Your task to perform on an android device: View the shopping cart on newegg. Add "duracell triple a" to the cart on newegg Image 0: 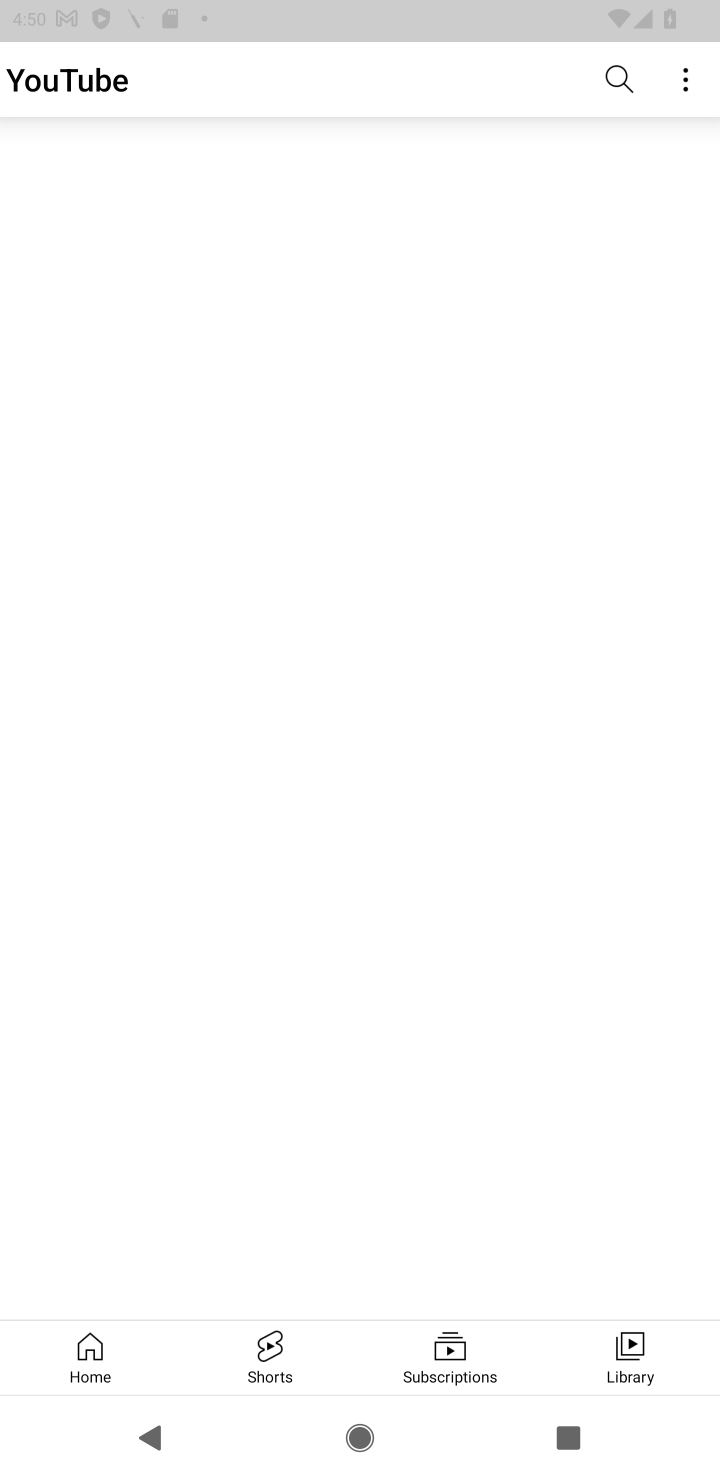
Step 0: press home button
Your task to perform on an android device: View the shopping cart on newegg. Add "duracell triple a" to the cart on newegg Image 1: 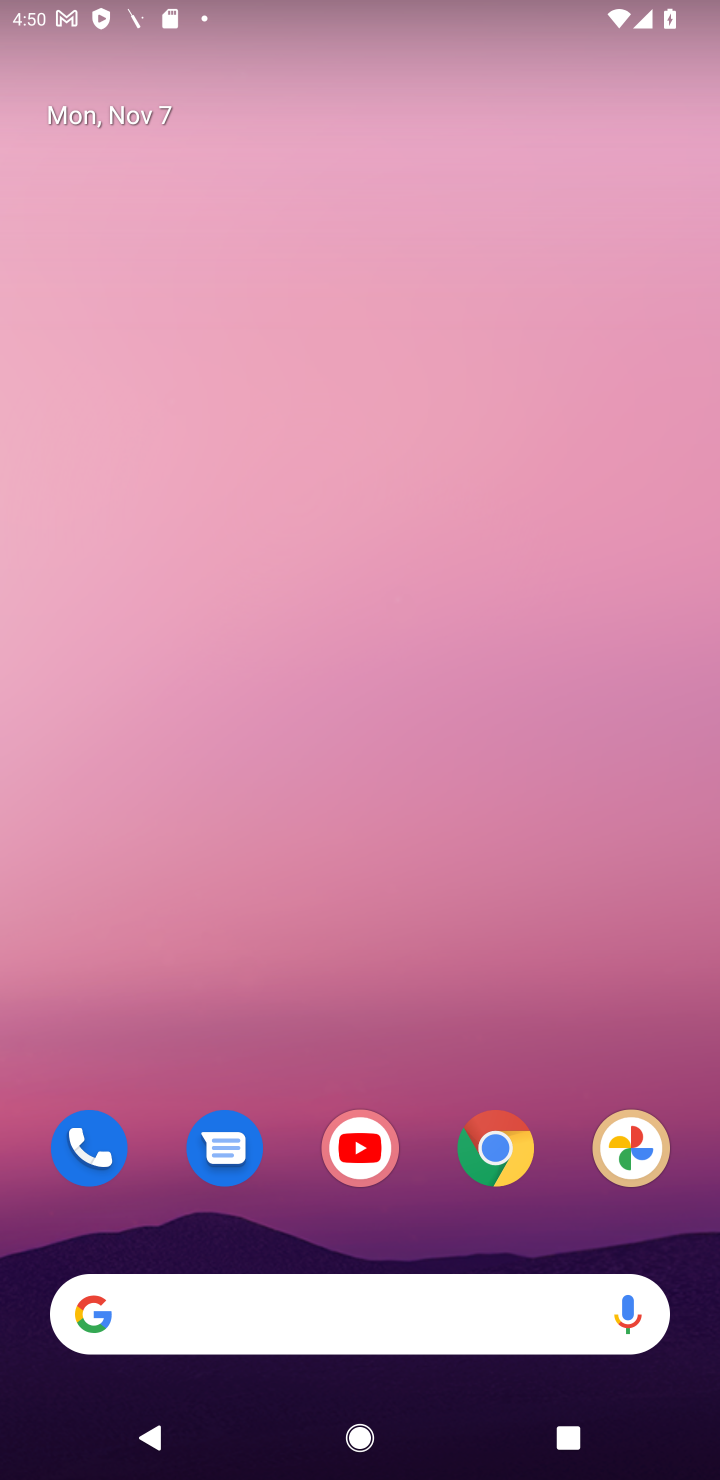
Step 1: click (493, 1155)
Your task to perform on an android device: View the shopping cart on newegg. Add "duracell triple a" to the cart on newegg Image 2: 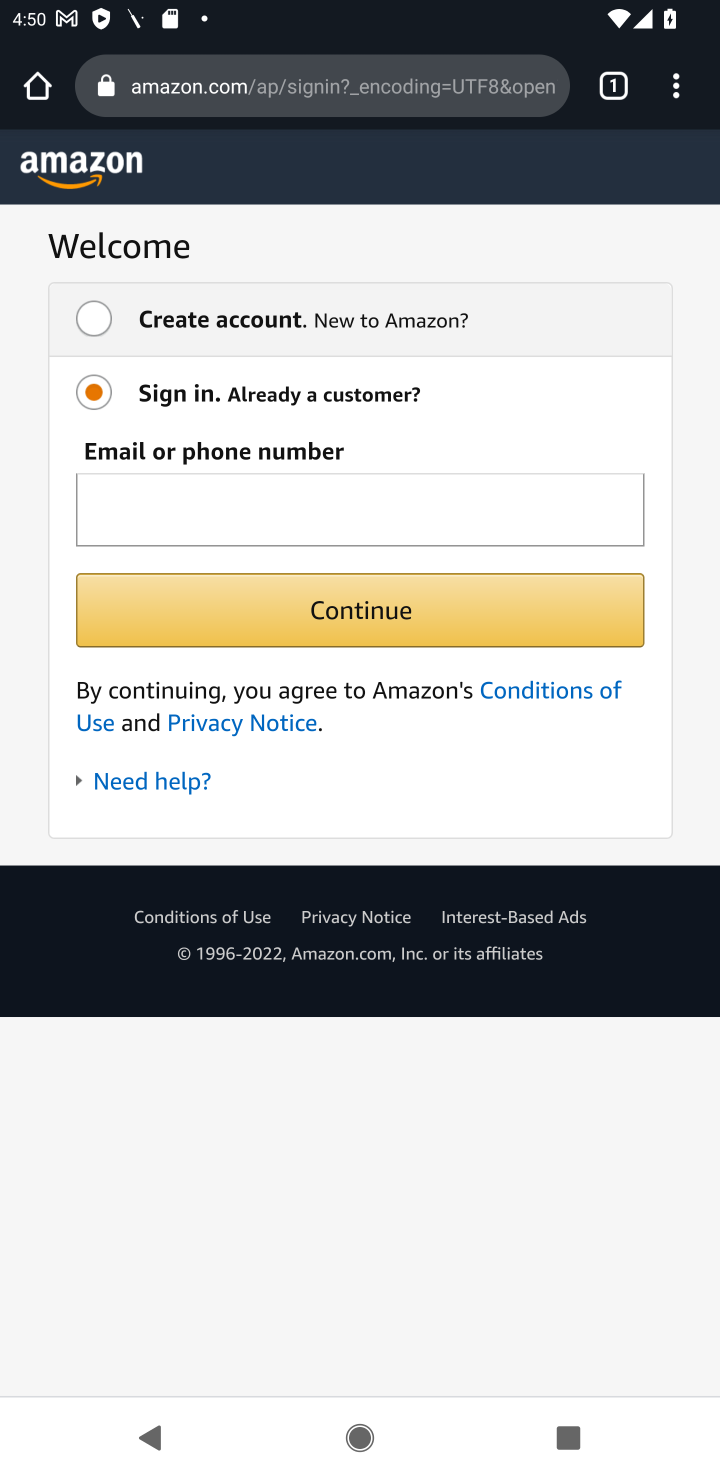
Step 2: click (401, 67)
Your task to perform on an android device: View the shopping cart on newegg. Add "duracell triple a" to the cart on newegg Image 3: 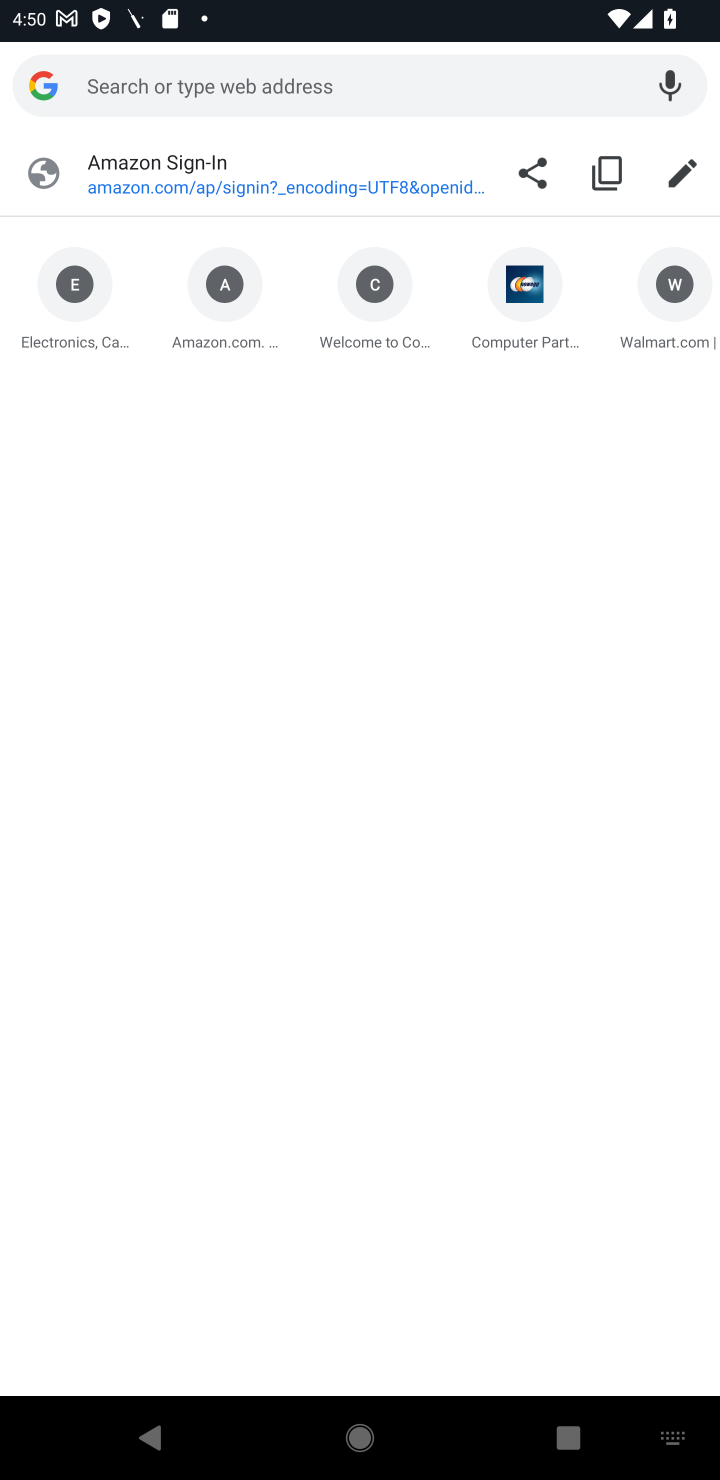
Step 3: type "newegg"
Your task to perform on an android device: View the shopping cart on newegg. Add "duracell triple a" to the cart on newegg Image 4: 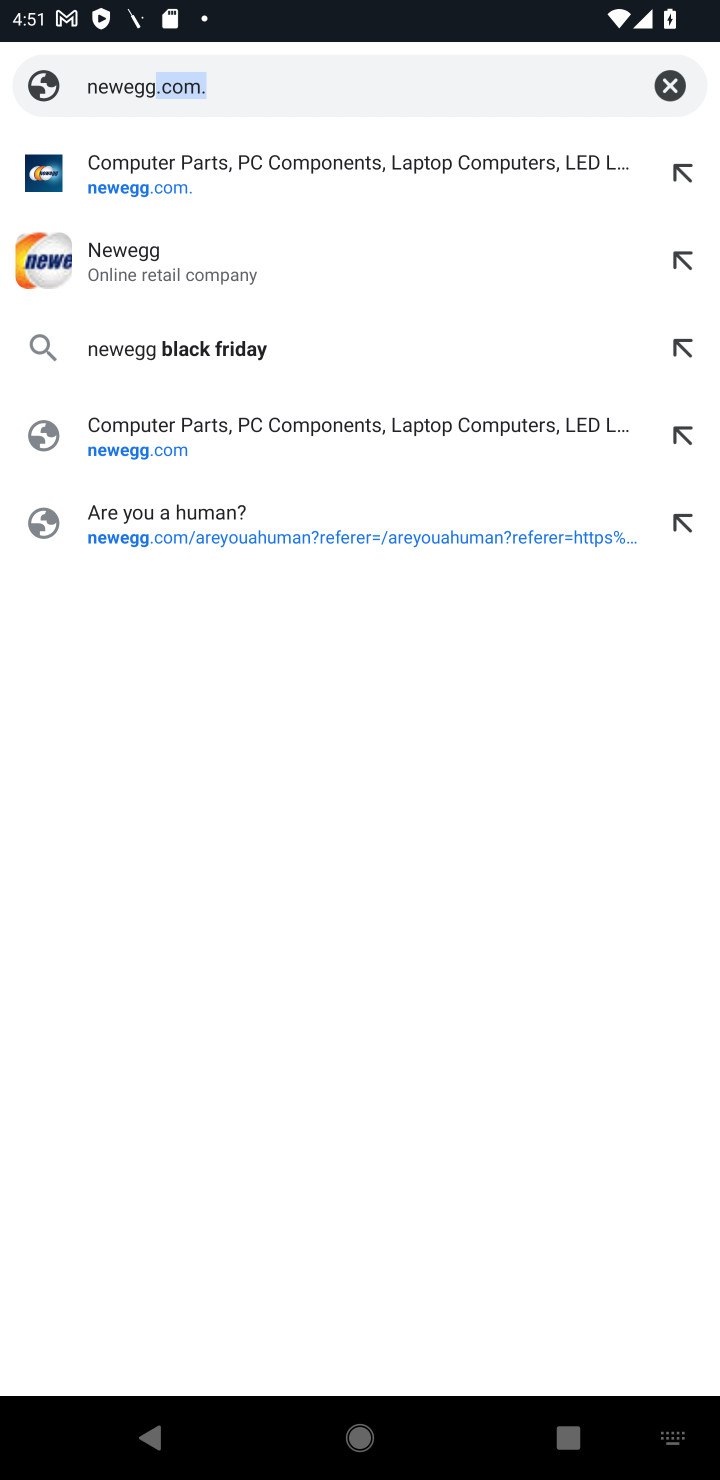
Step 4: click (145, 181)
Your task to perform on an android device: View the shopping cart on newegg. Add "duracell triple a" to the cart on newegg Image 5: 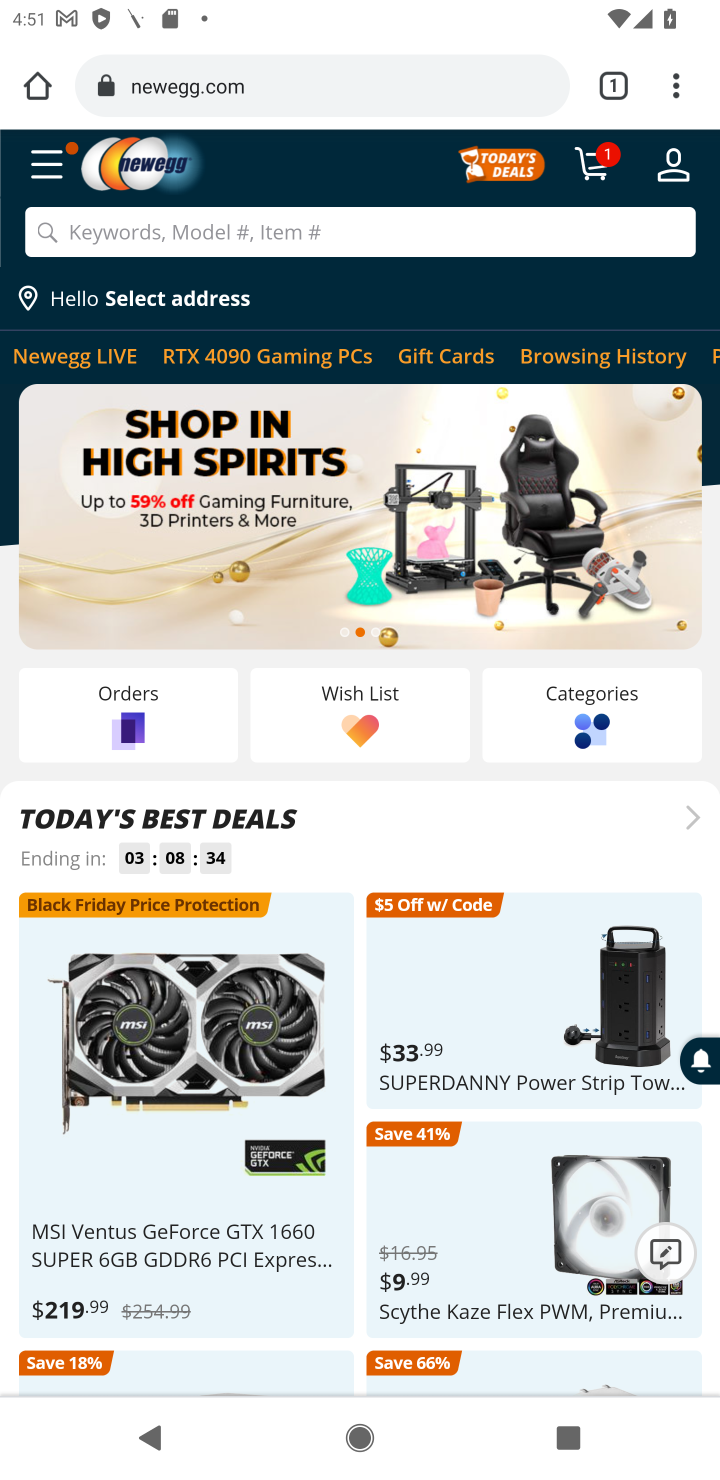
Step 5: click (247, 218)
Your task to perform on an android device: View the shopping cart on newegg. Add "duracell triple a" to the cart on newegg Image 6: 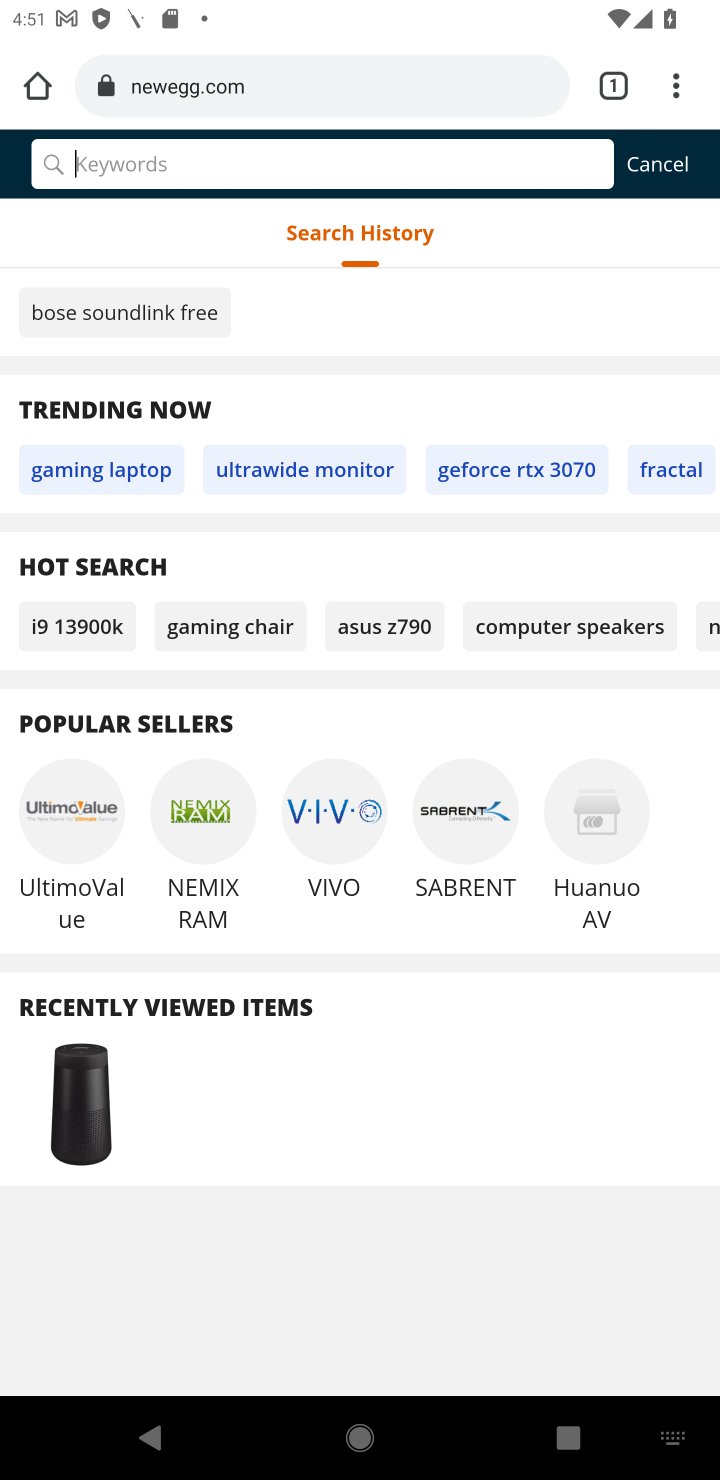
Step 6: type "duracell triple a"
Your task to perform on an android device: View the shopping cart on newegg. Add "duracell triple a" to the cart on newegg Image 7: 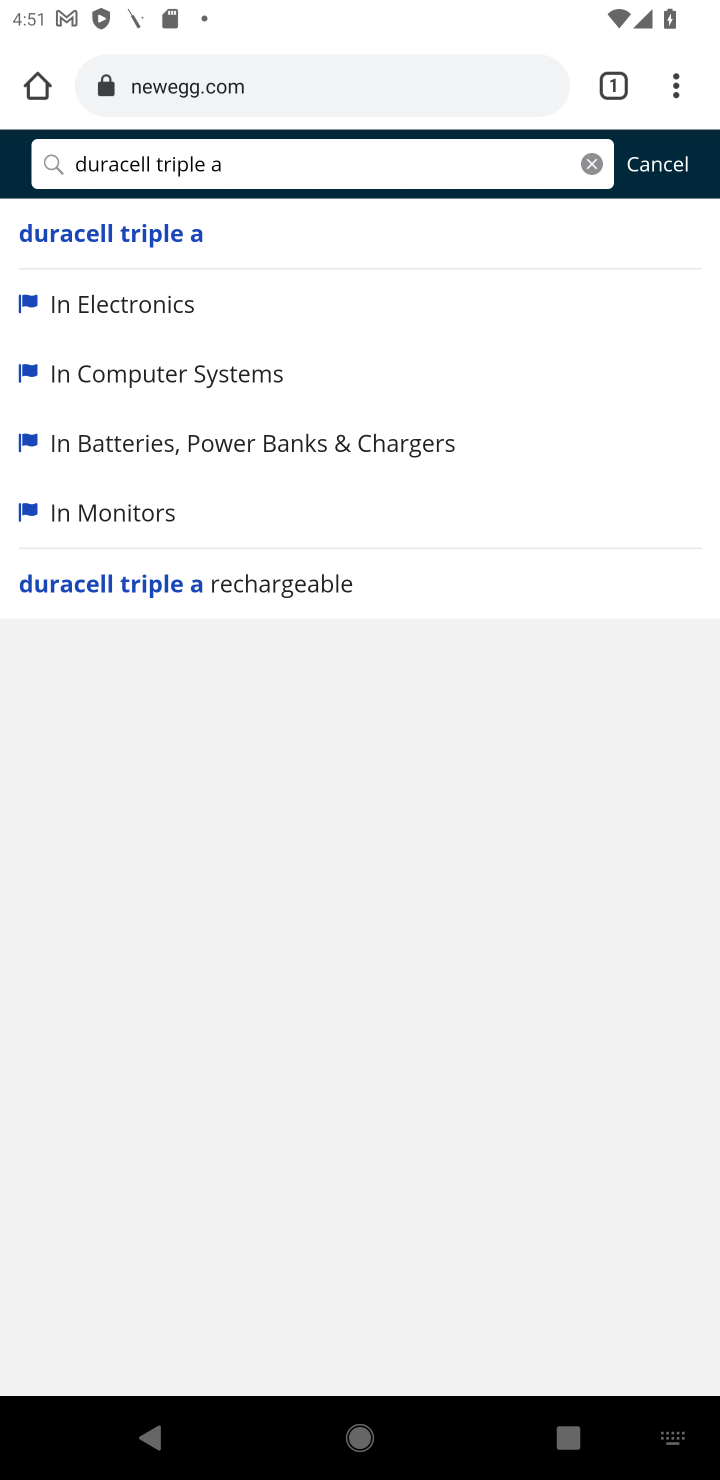
Step 7: click (75, 230)
Your task to perform on an android device: View the shopping cart on newegg. Add "duracell triple a" to the cart on newegg Image 8: 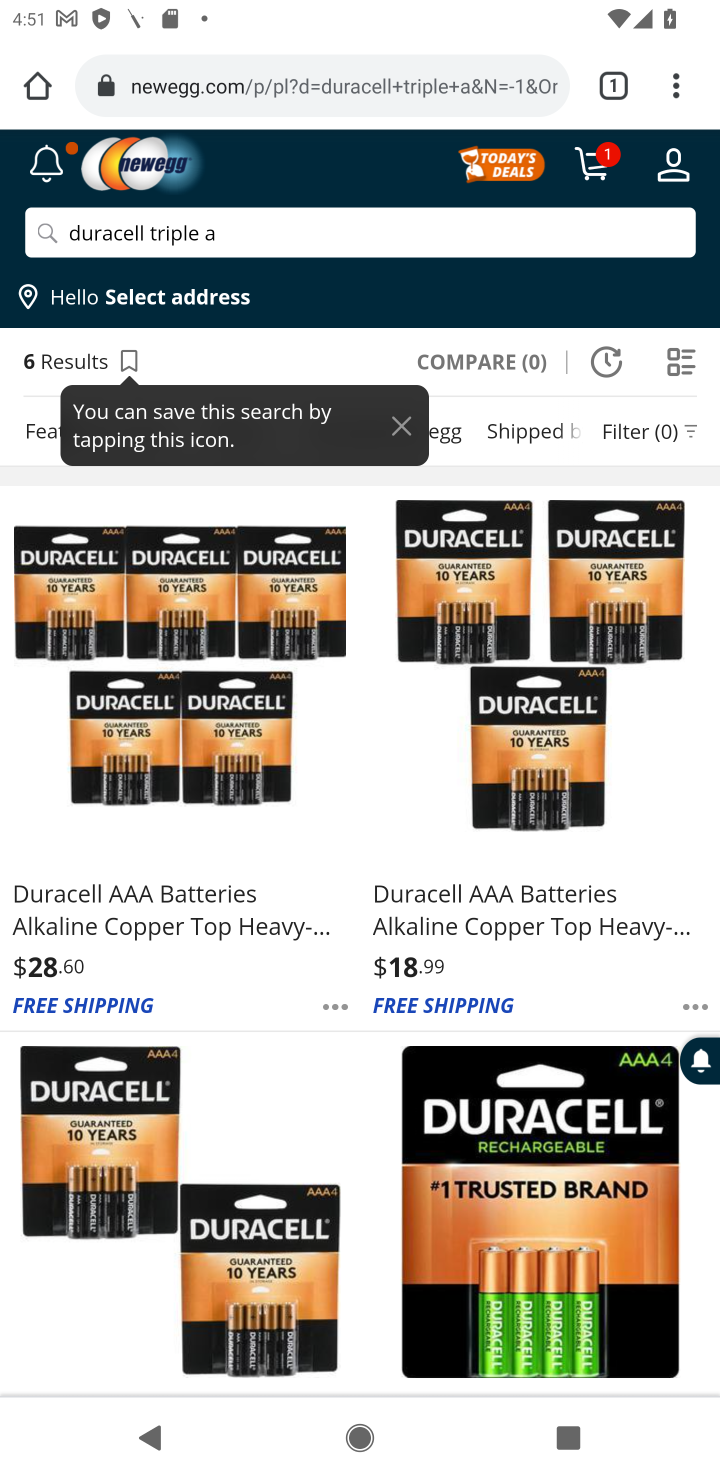
Step 8: click (135, 922)
Your task to perform on an android device: View the shopping cart on newegg. Add "duracell triple a" to the cart on newegg Image 9: 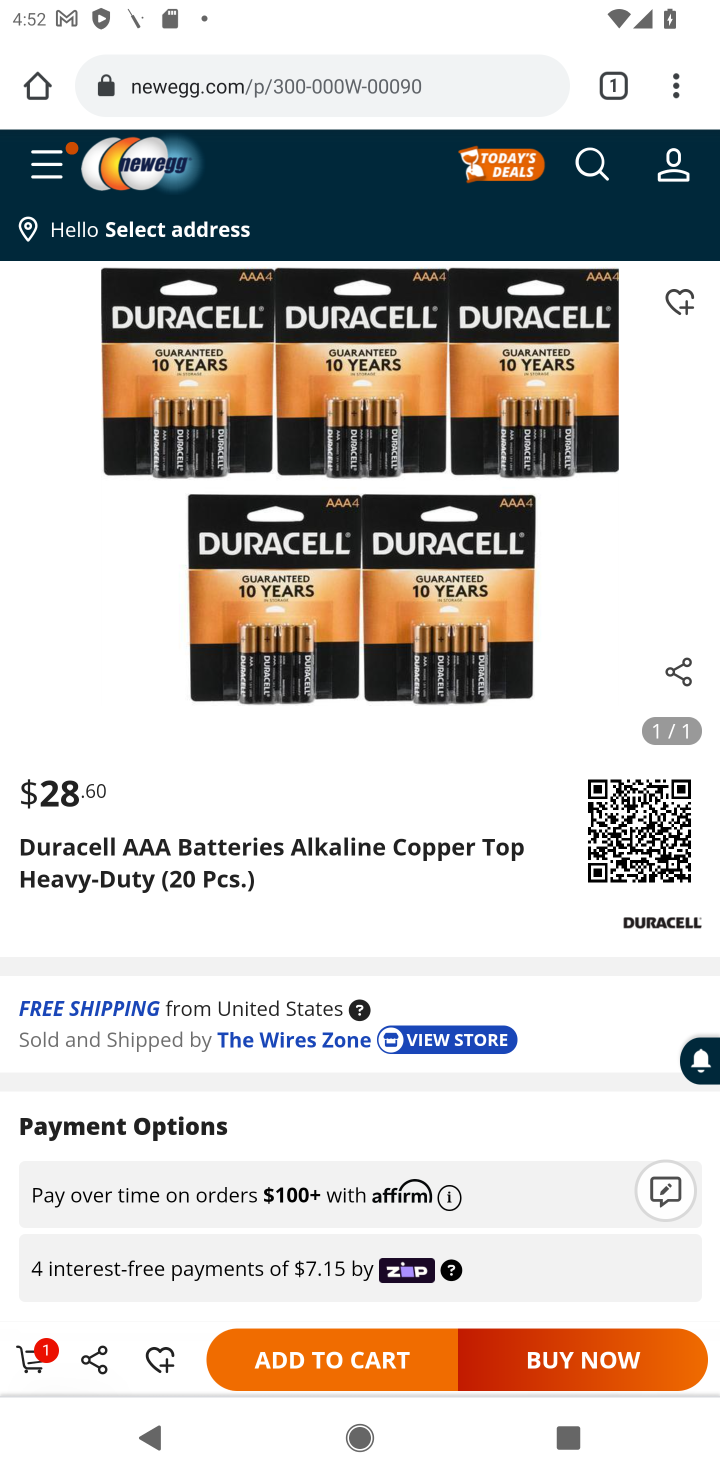
Step 9: click (350, 1377)
Your task to perform on an android device: View the shopping cart on newegg. Add "duracell triple a" to the cart on newegg Image 10: 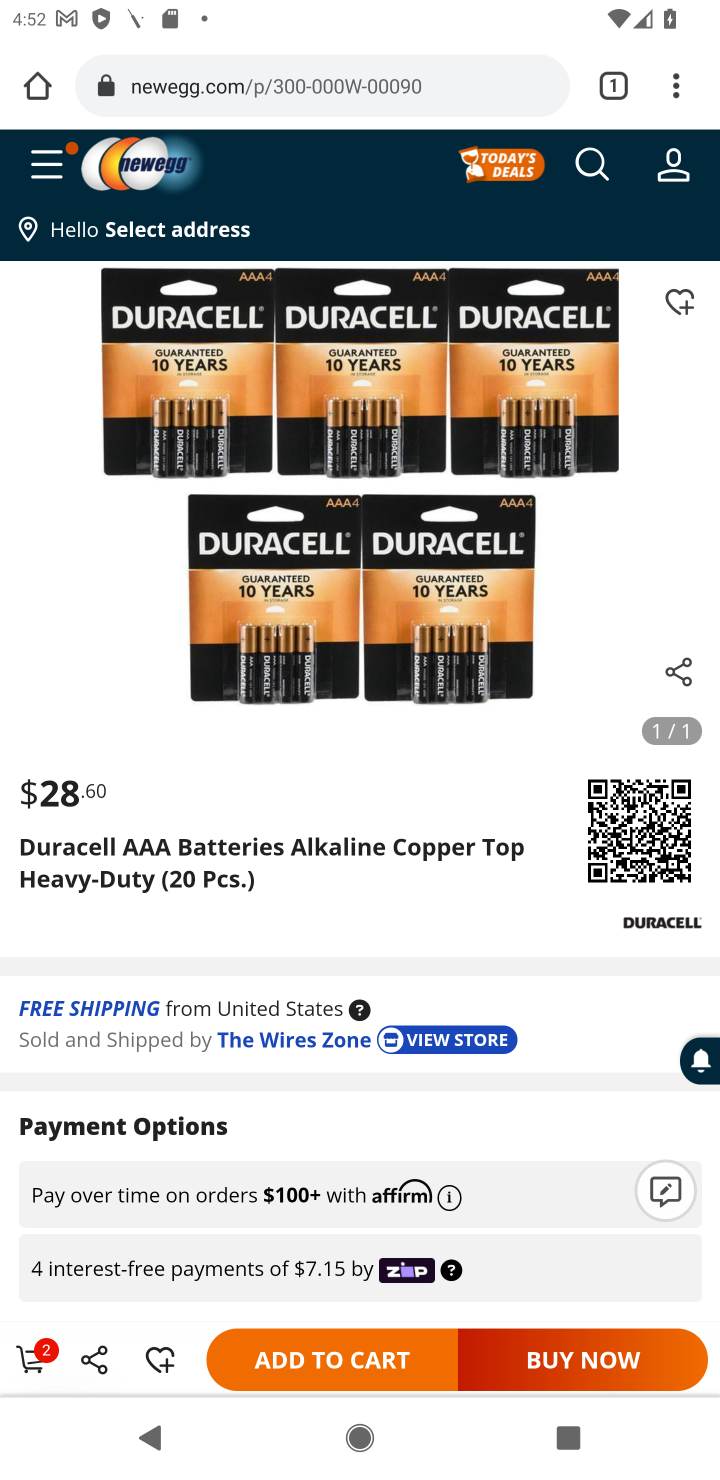
Step 10: click (36, 1356)
Your task to perform on an android device: View the shopping cart on newegg. Add "duracell triple a" to the cart on newegg Image 11: 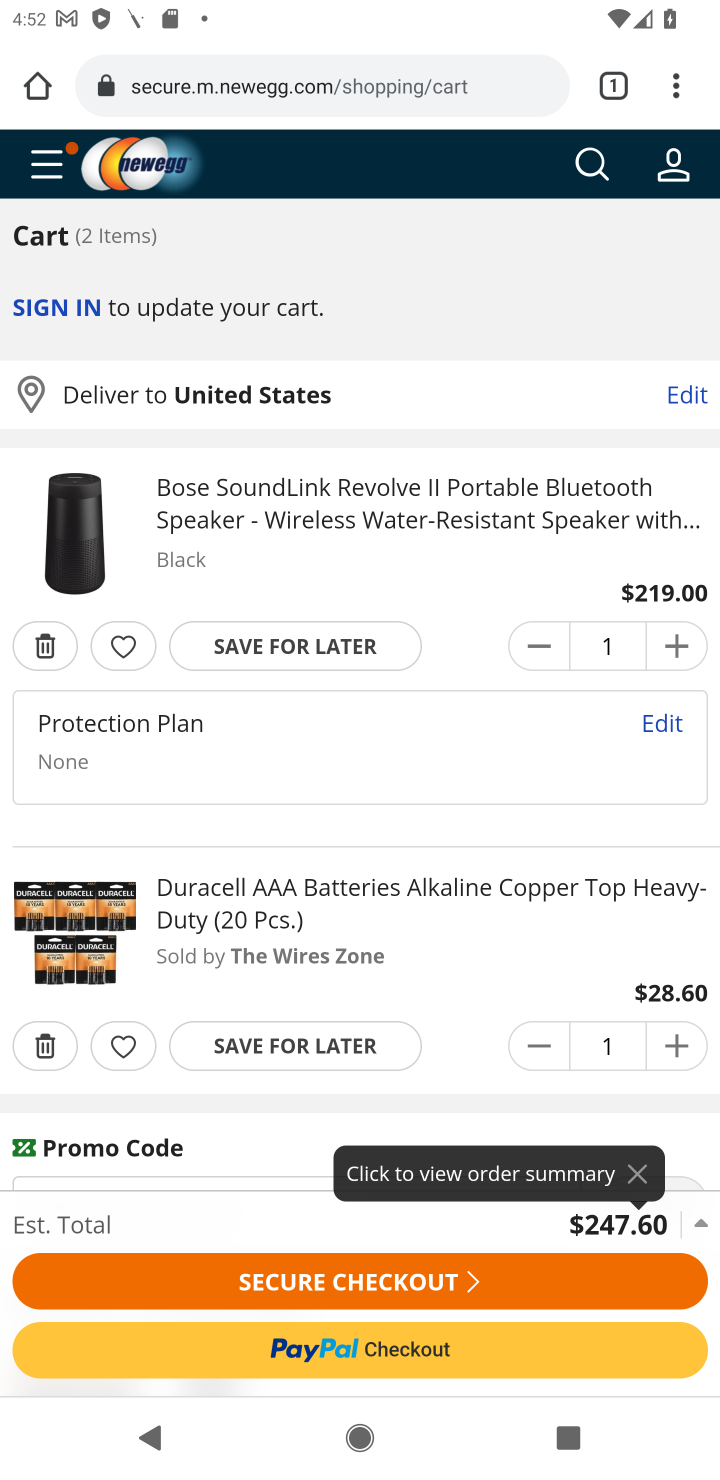
Step 11: task complete